Your task to perform on an android device: turn off smart reply in the gmail app Image 0: 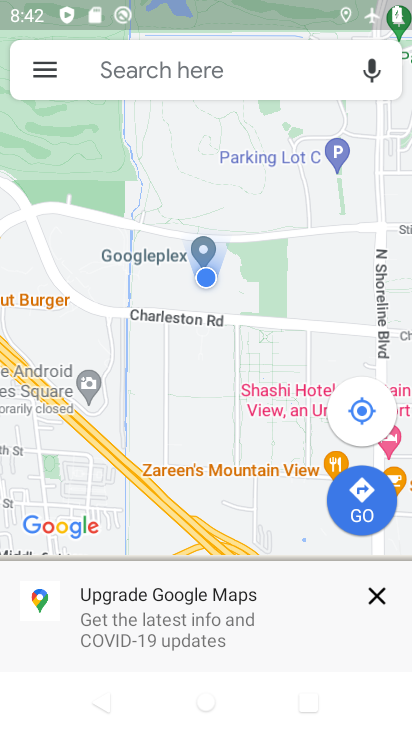
Step 0: press home button
Your task to perform on an android device: turn off smart reply in the gmail app Image 1: 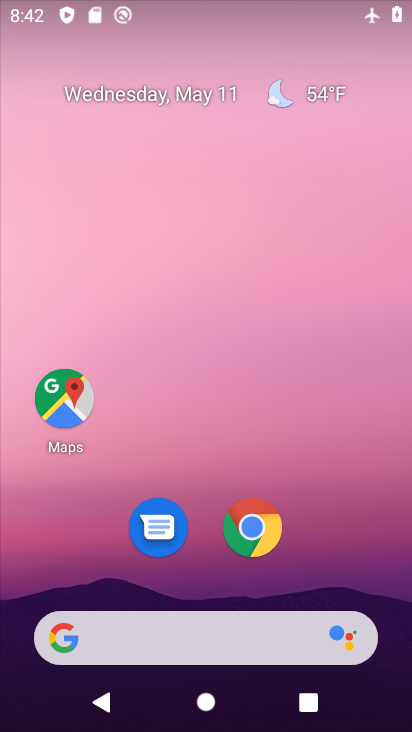
Step 1: drag from (304, 504) to (286, 191)
Your task to perform on an android device: turn off smart reply in the gmail app Image 2: 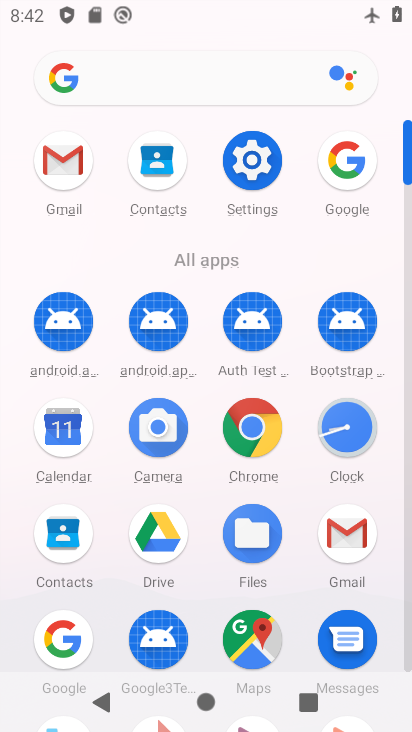
Step 2: click (65, 157)
Your task to perform on an android device: turn off smart reply in the gmail app Image 3: 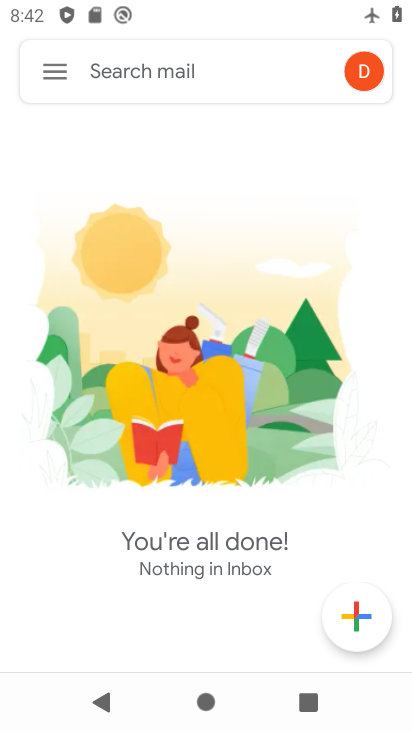
Step 3: click (59, 77)
Your task to perform on an android device: turn off smart reply in the gmail app Image 4: 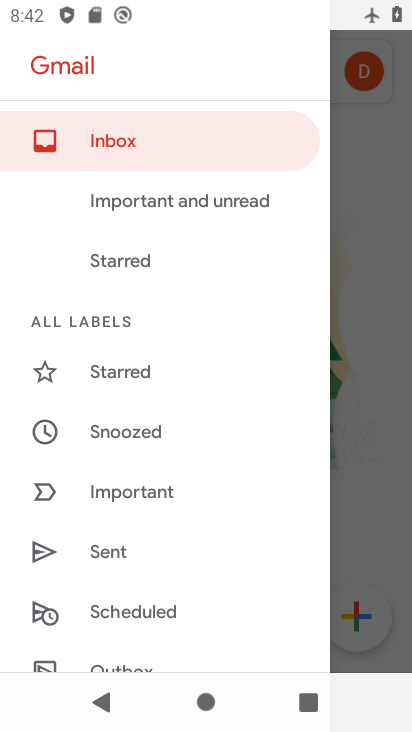
Step 4: drag from (205, 625) to (205, 194)
Your task to perform on an android device: turn off smart reply in the gmail app Image 5: 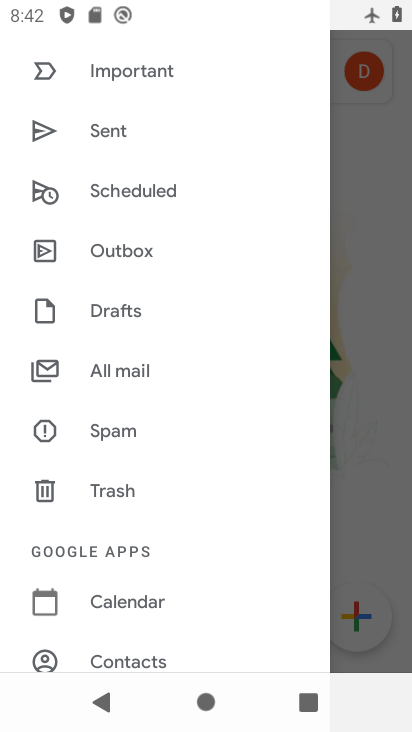
Step 5: drag from (120, 584) to (143, 296)
Your task to perform on an android device: turn off smart reply in the gmail app Image 6: 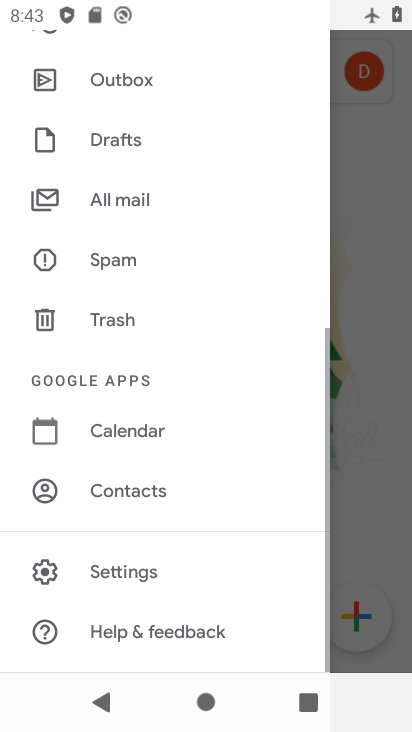
Step 6: click (131, 577)
Your task to perform on an android device: turn off smart reply in the gmail app Image 7: 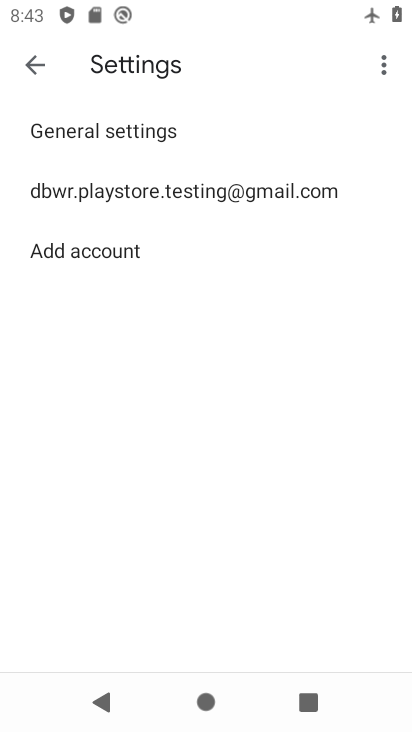
Step 7: click (214, 199)
Your task to perform on an android device: turn off smart reply in the gmail app Image 8: 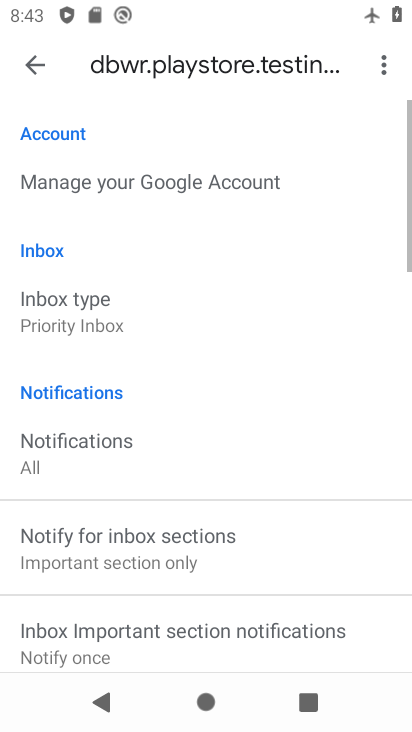
Step 8: drag from (220, 625) to (259, 262)
Your task to perform on an android device: turn off smart reply in the gmail app Image 9: 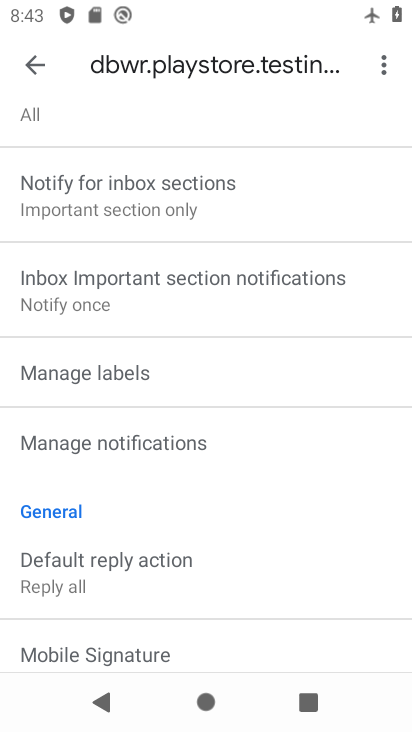
Step 9: drag from (233, 568) to (266, 190)
Your task to perform on an android device: turn off smart reply in the gmail app Image 10: 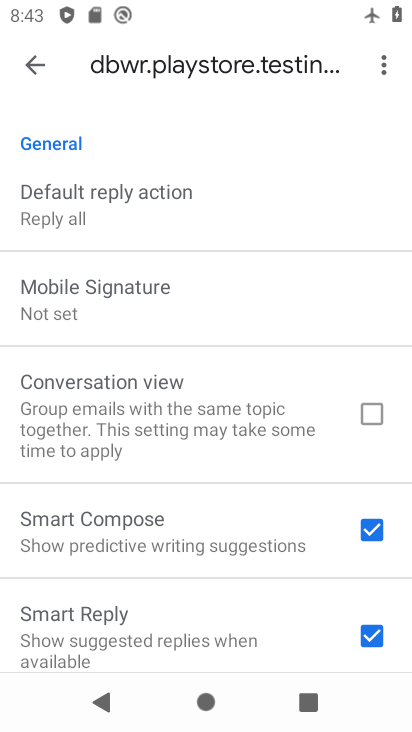
Step 10: click (370, 629)
Your task to perform on an android device: turn off smart reply in the gmail app Image 11: 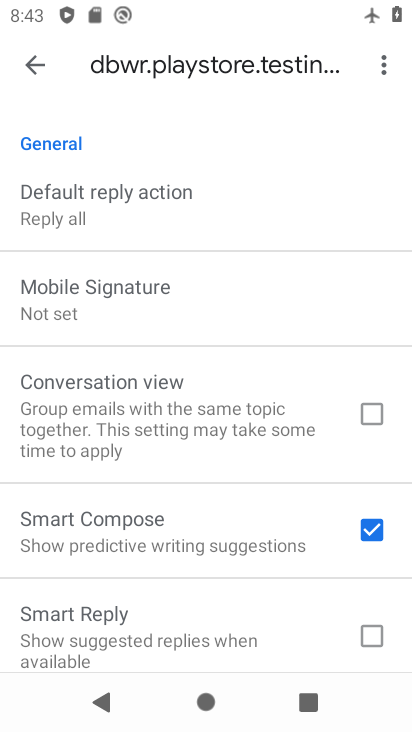
Step 11: task complete